Your task to perform on an android device: turn off wifi Image 0: 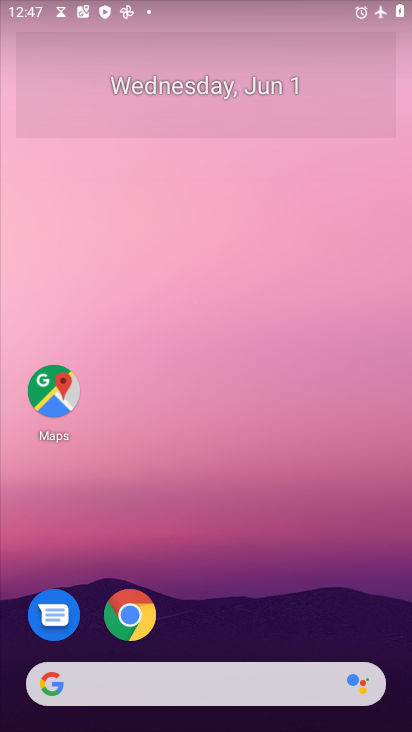
Step 0: drag from (324, 543) to (278, 20)
Your task to perform on an android device: turn off wifi Image 1: 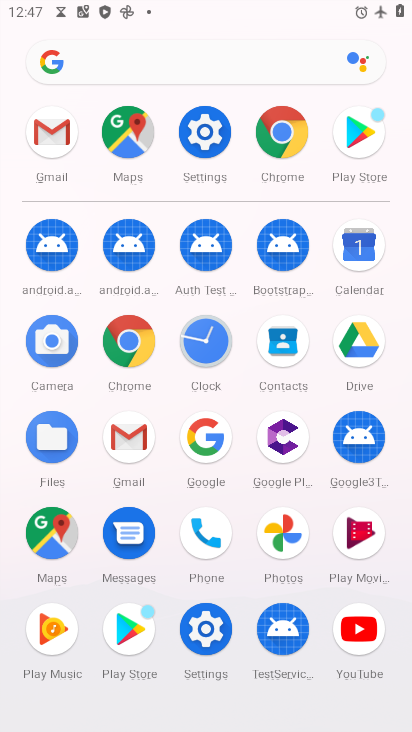
Step 1: click (211, 145)
Your task to perform on an android device: turn off wifi Image 2: 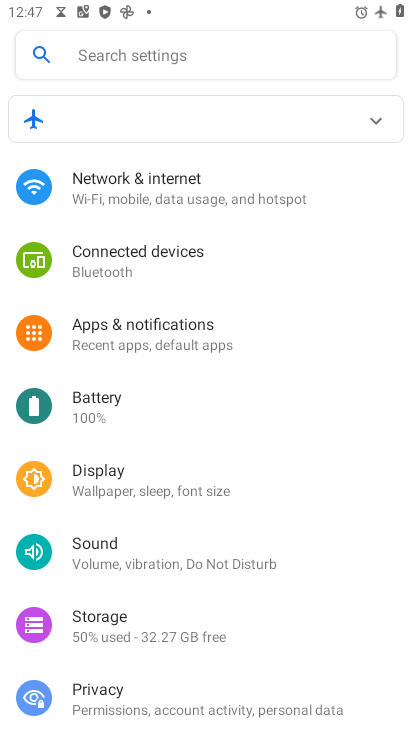
Step 2: click (158, 194)
Your task to perform on an android device: turn off wifi Image 3: 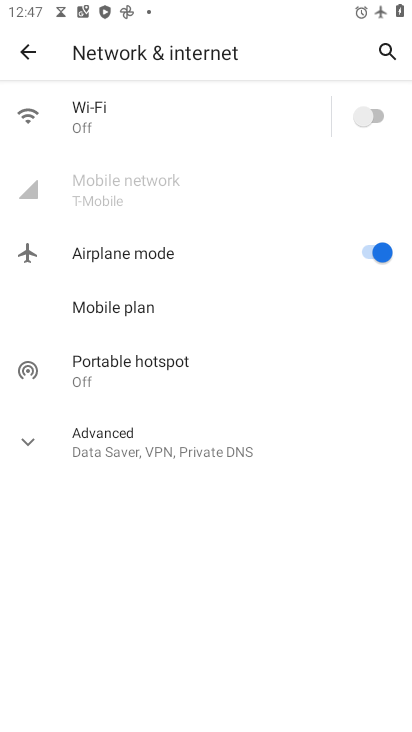
Step 3: task complete